Your task to perform on an android device: Open settings on Google Maps Image 0: 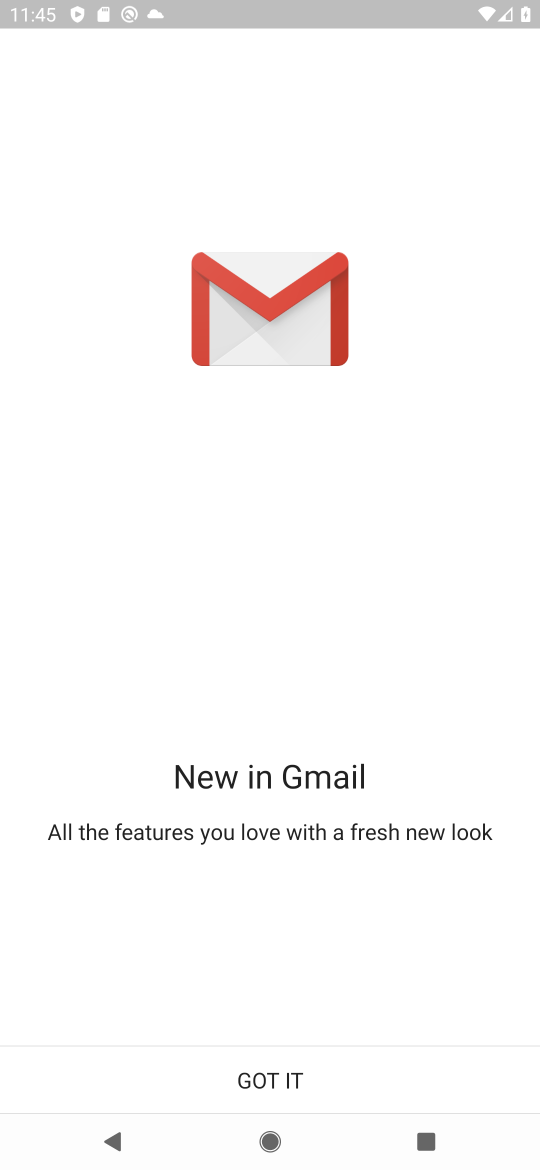
Step 0: press home button
Your task to perform on an android device: Open settings on Google Maps Image 1: 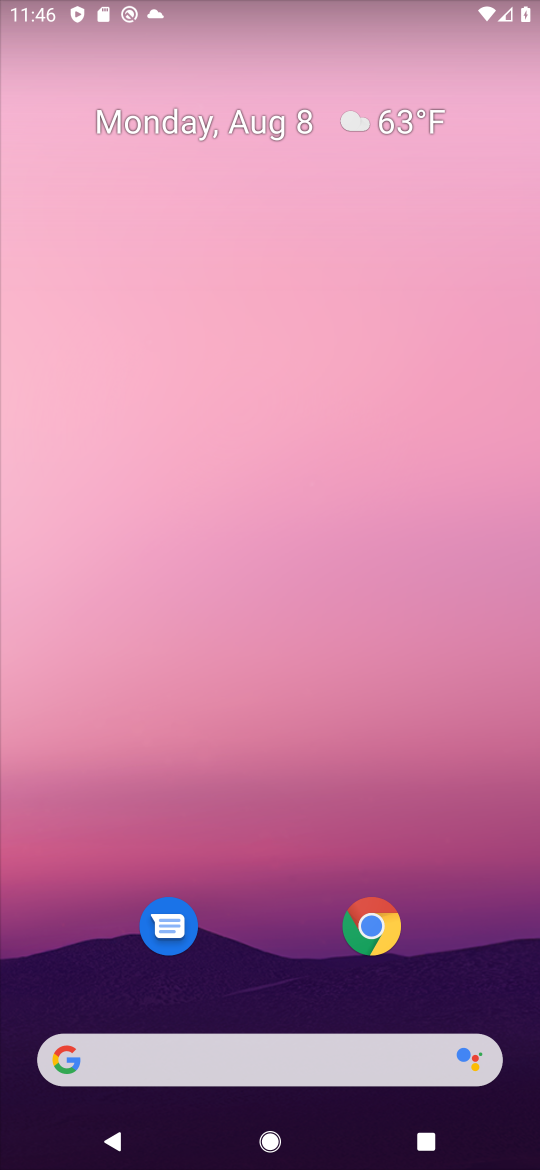
Step 1: drag from (31, 956) to (427, 175)
Your task to perform on an android device: Open settings on Google Maps Image 2: 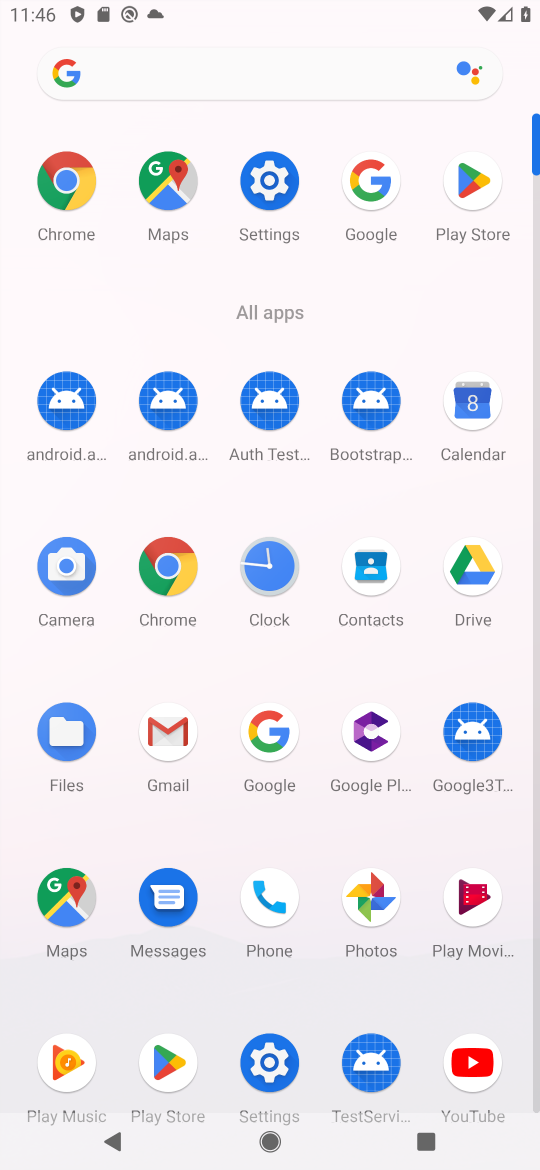
Step 2: click (91, 897)
Your task to perform on an android device: Open settings on Google Maps Image 3: 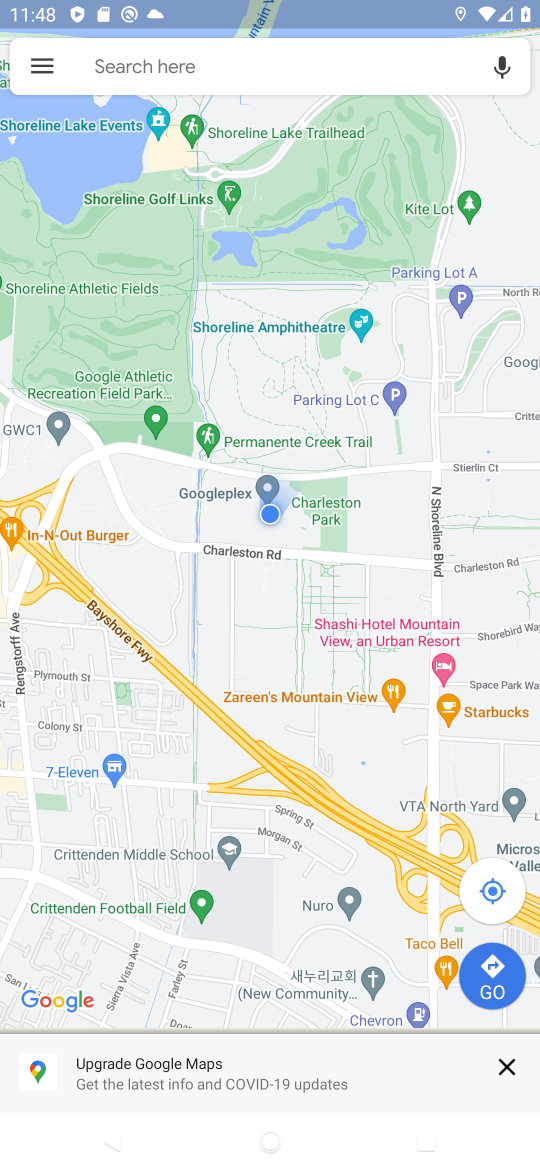
Step 3: click (32, 67)
Your task to perform on an android device: Open settings on Google Maps Image 4: 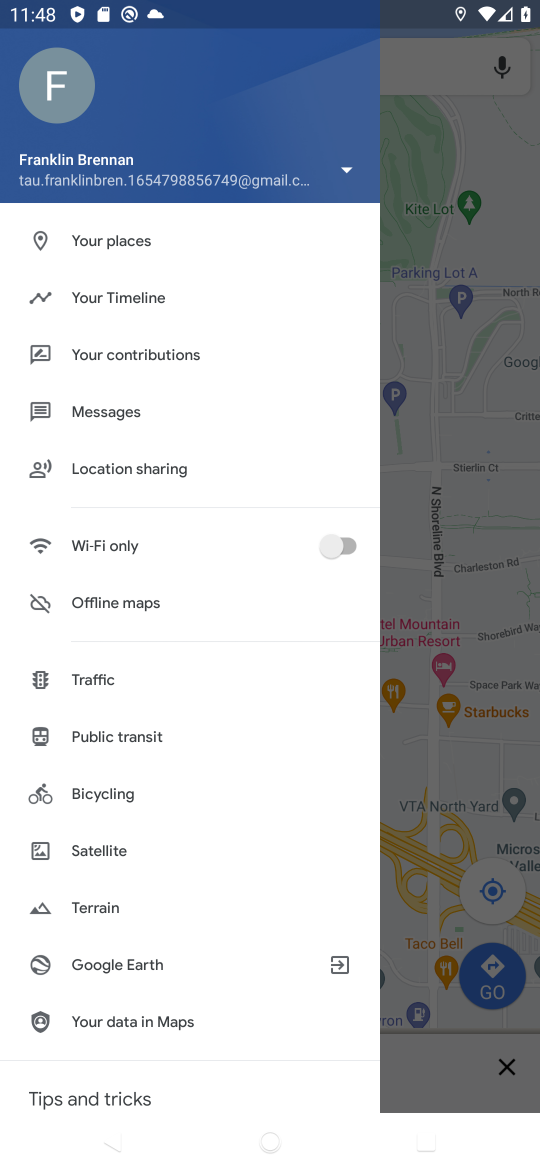
Step 4: drag from (29, 920) to (173, 276)
Your task to perform on an android device: Open settings on Google Maps Image 5: 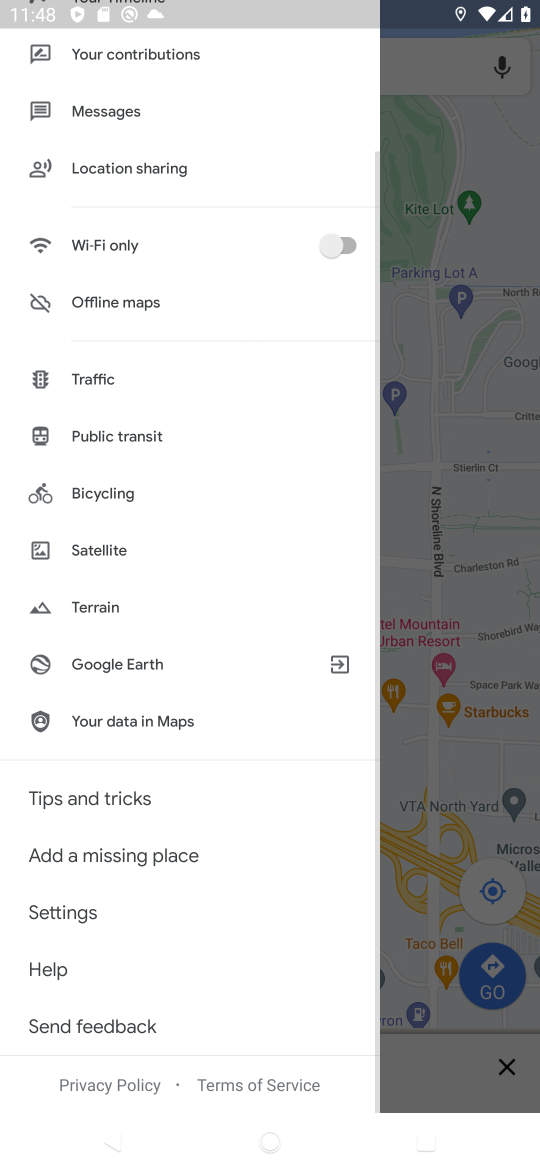
Step 5: click (95, 903)
Your task to perform on an android device: Open settings on Google Maps Image 6: 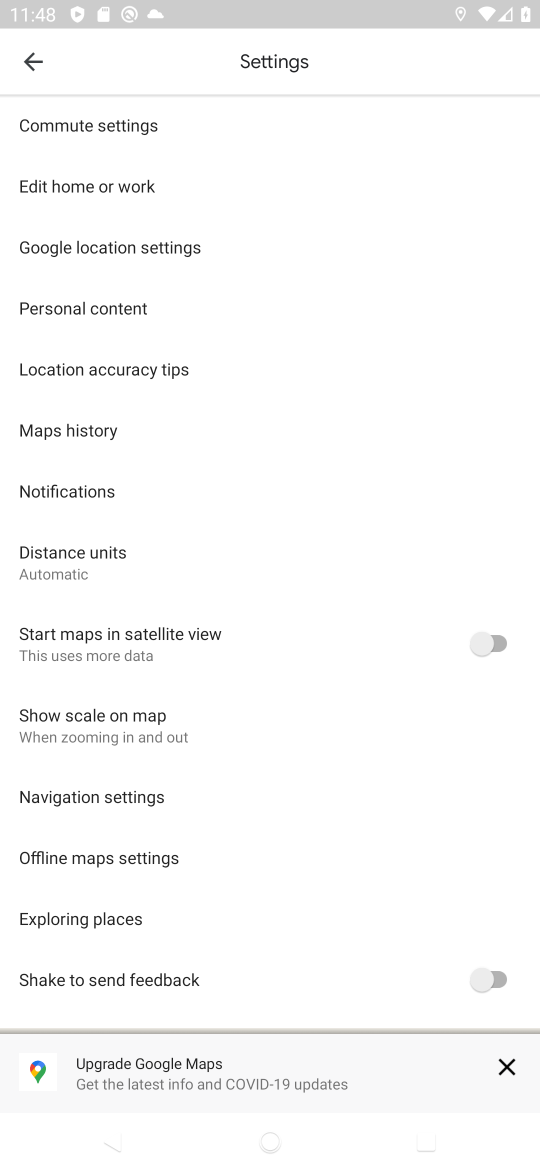
Step 6: task complete